Your task to perform on an android device: set default search engine in the chrome app Image 0: 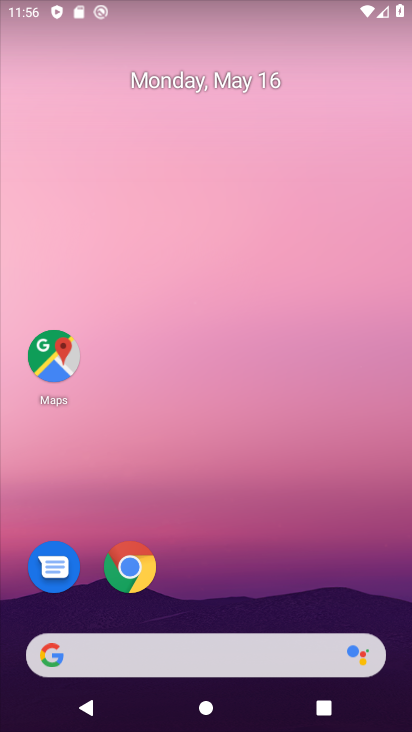
Step 0: click (130, 565)
Your task to perform on an android device: set default search engine in the chrome app Image 1: 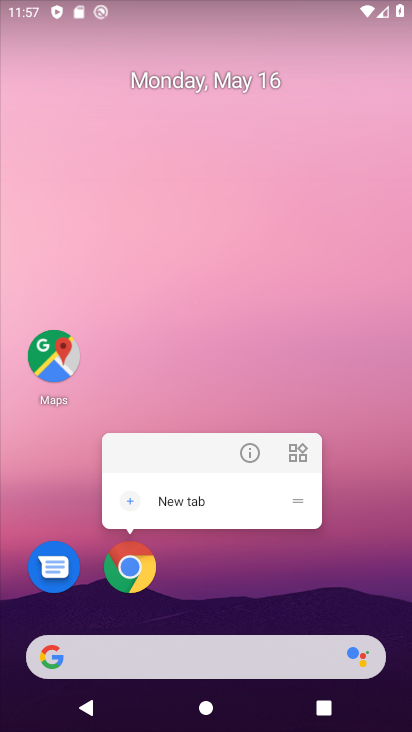
Step 1: click (135, 571)
Your task to perform on an android device: set default search engine in the chrome app Image 2: 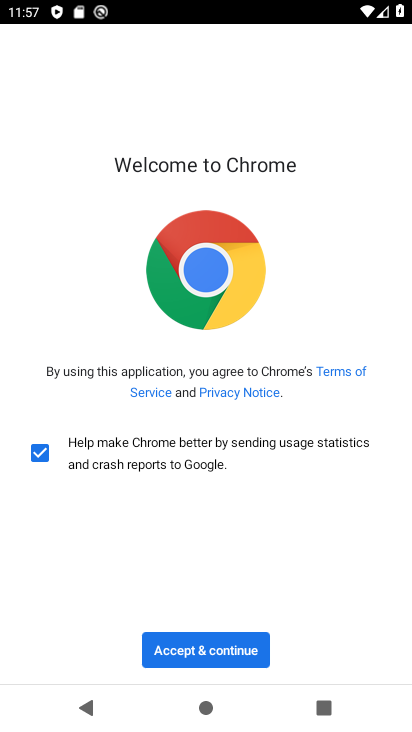
Step 2: click (191, 659)
Your task to perform on an android device: set default search engine in the chrome app Image 3: 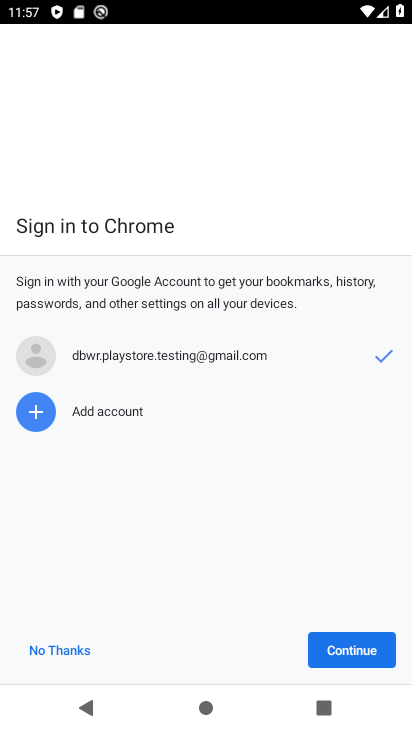
Step 3: click (320, 657)
Your task to perform on an android device: set default search engine in the chrome app Image 4: 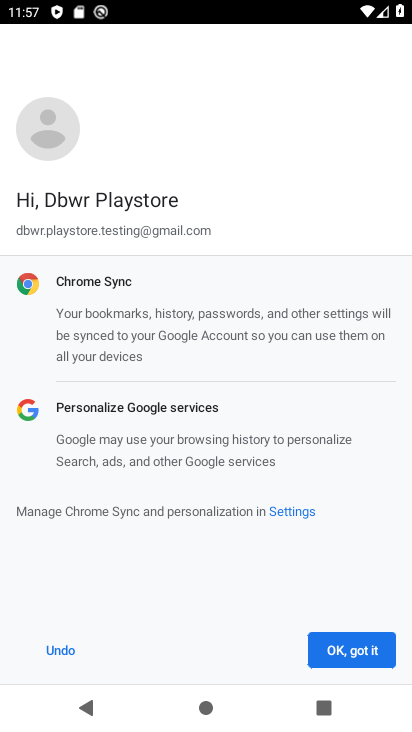
Step 4: click (348, 659)
Your task to perform on an android device: set default search engine in the chrome app Image 5: 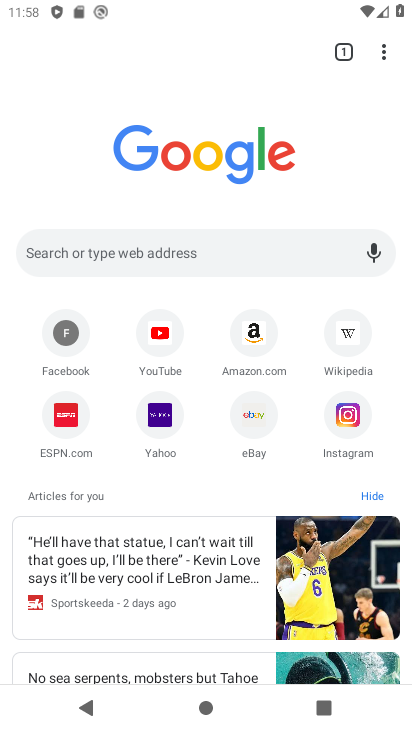
Step 5: click (380, 46)
Your task to perform on an android device: set default search engine in the chrome app Image 6: 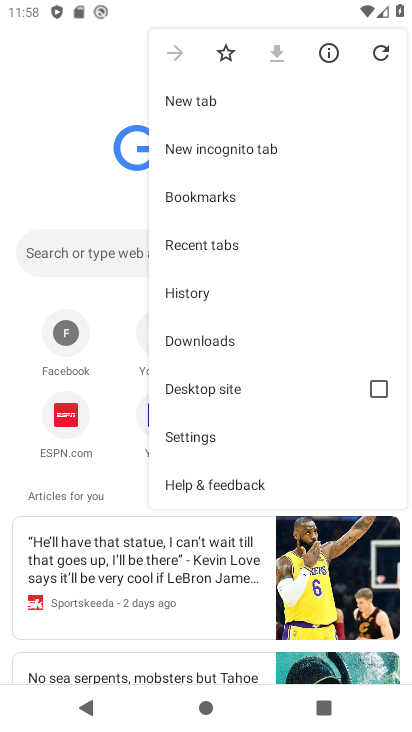
Step 6: click (192, 438)
Your task to perform on an android device: set default search engine in the chrome app Image 7: 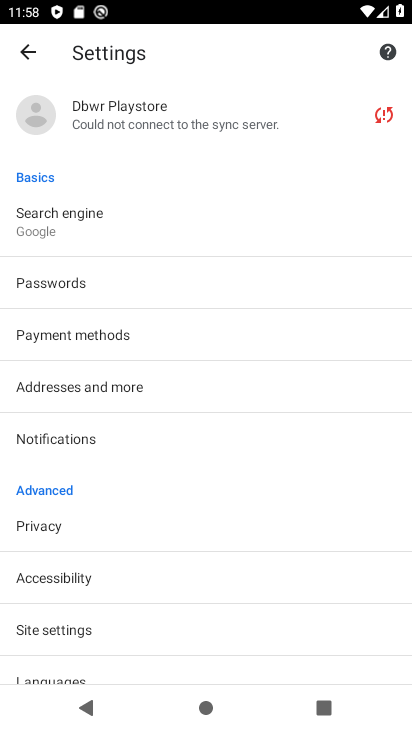
Step 7: click (64, 211)
Your task to perform on an android device: set default search engine in the chrome app Image 8: 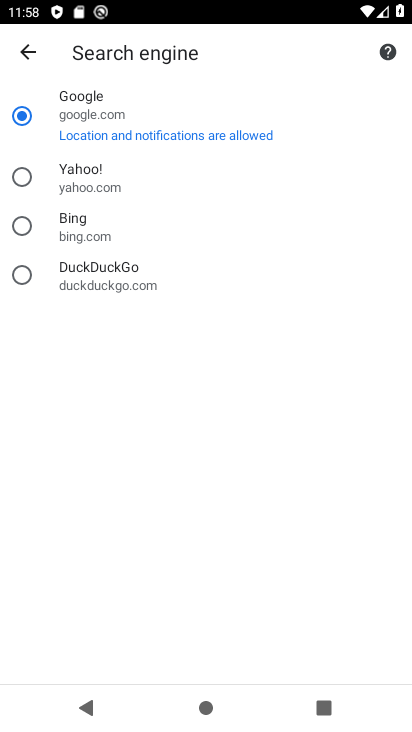
Step 8: task complete